Your task to perform on an android device: Open Yahoo.com Image 0: 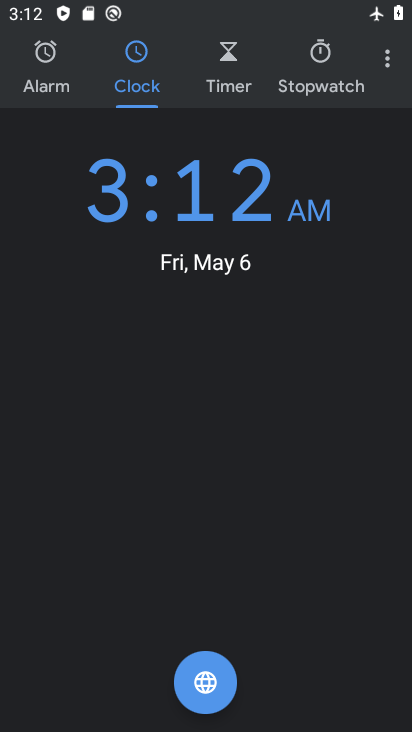
Step 0: press home button
Your task to perform on an android device: Open Yahoo.com Image 1: 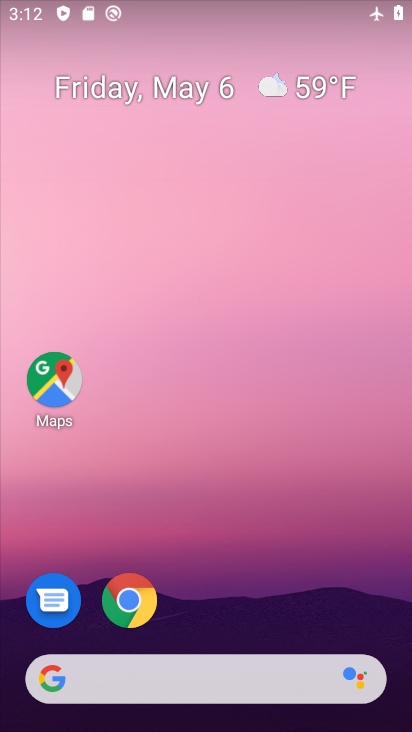
Step 1: drag from (225, 631) to (275, 103)
Your task to perform on an android device: Open Yahoo.com Image 2: 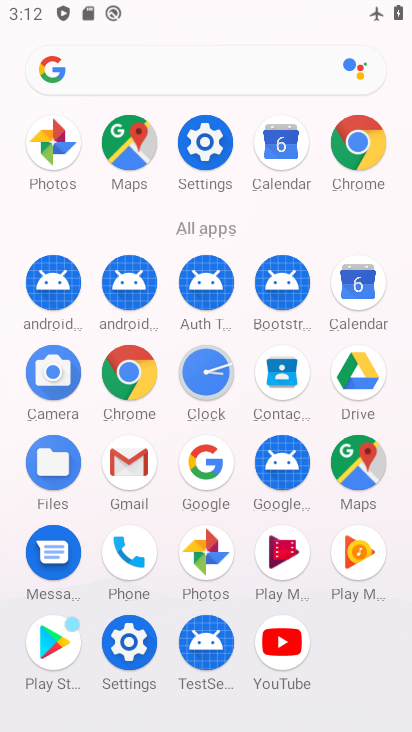
Step 2: click (114, 383)
Your task to perform on an android device: Open Yahoo.com Image 3: 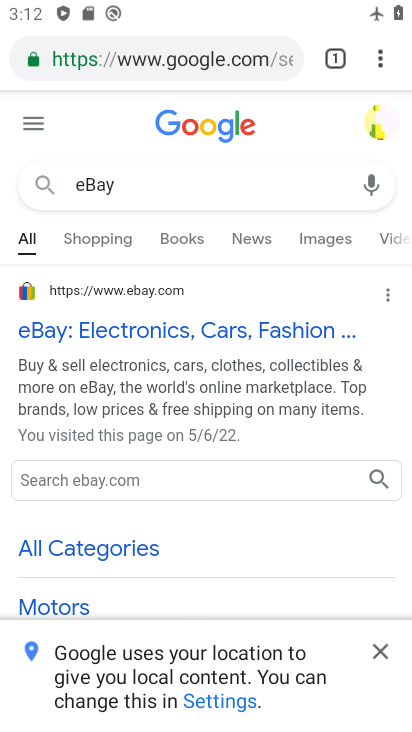
Step 3: click (172, 64)
Your task to perform on an android device: Open Yahoo.com Image 4: 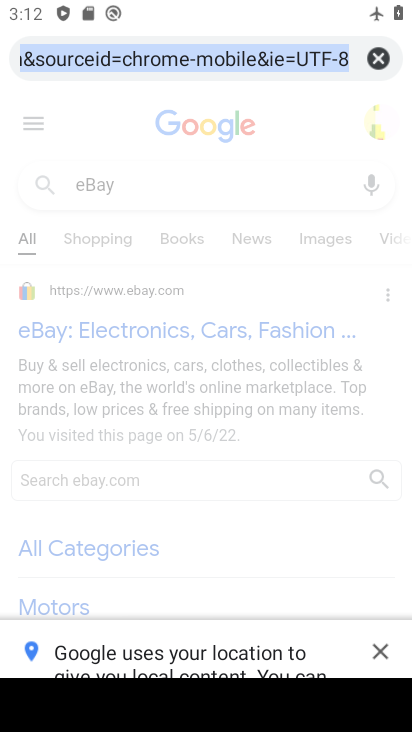
Step 4: type "yahoo.com"
Your task to perform on an android device: Open Yahoo.com Image 5: 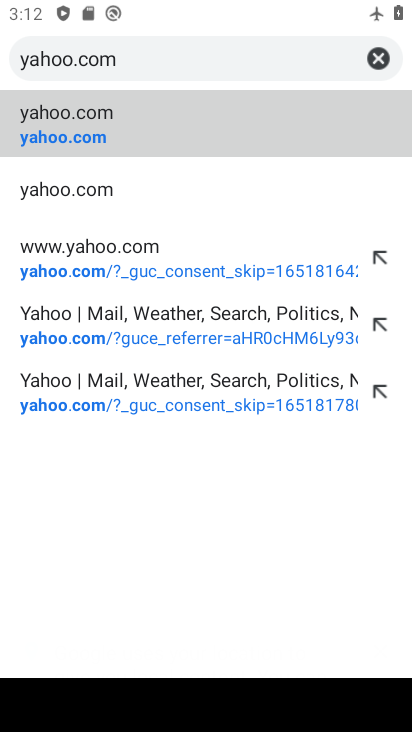
Step 5: click (228, 134)
Your task to perform on an android device: Open Yahoo.com Image 6: 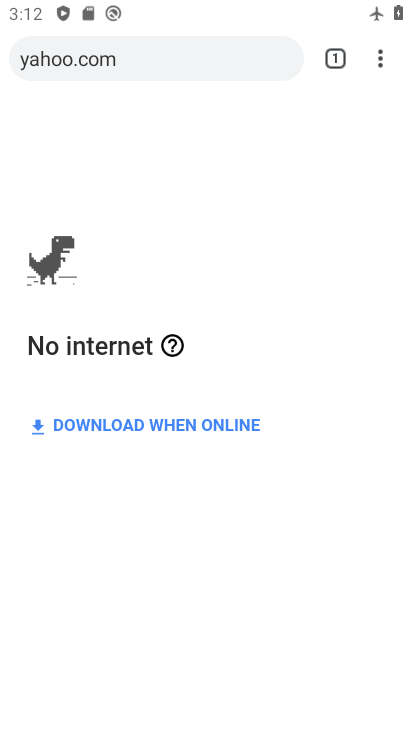
Step 6: task complete